Your task to perform on an android device: Go to notification settings Image 0: 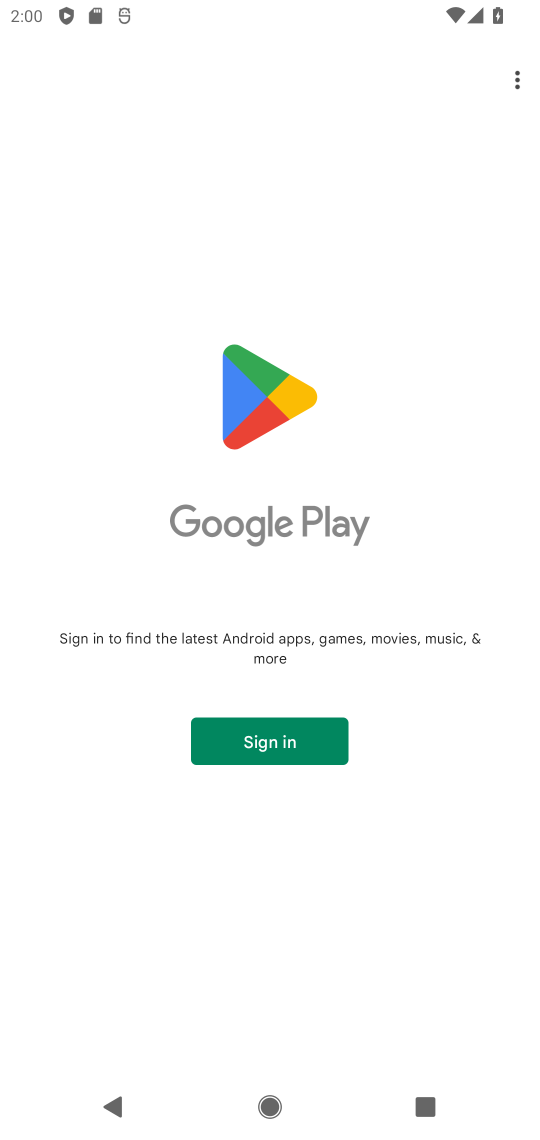
Step 0: press home button
Your task to perform on an android device: Go to notification settings Image 1: 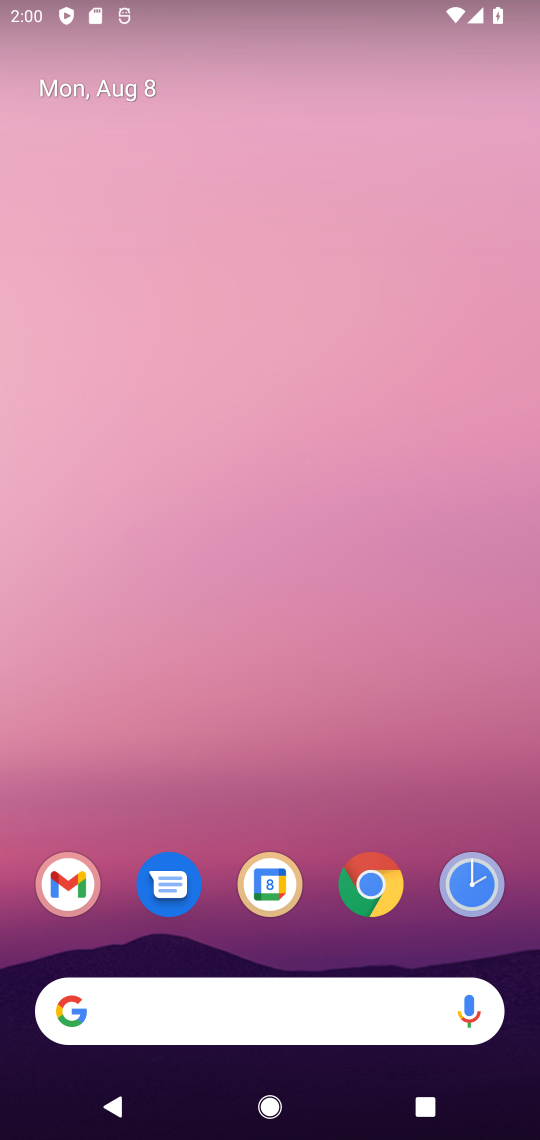
Step 1: drag from (272, 789) to (269, 226)
Your task to perform on an android device: Go to notification settings Image 2: 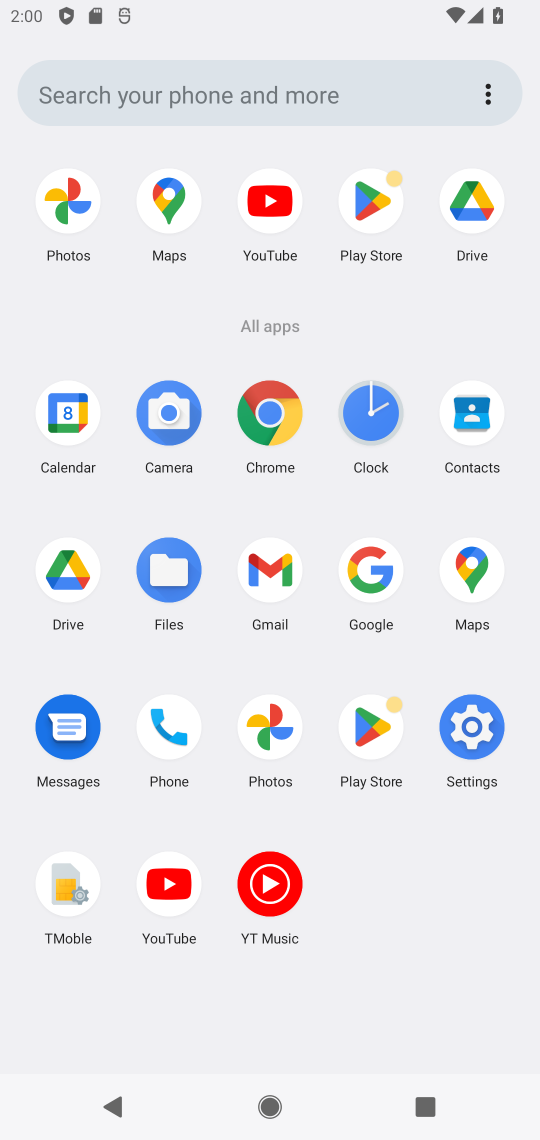
Step 2: click (474, 729)
Your task to perform on an android device: Go to notification settings Image 3: 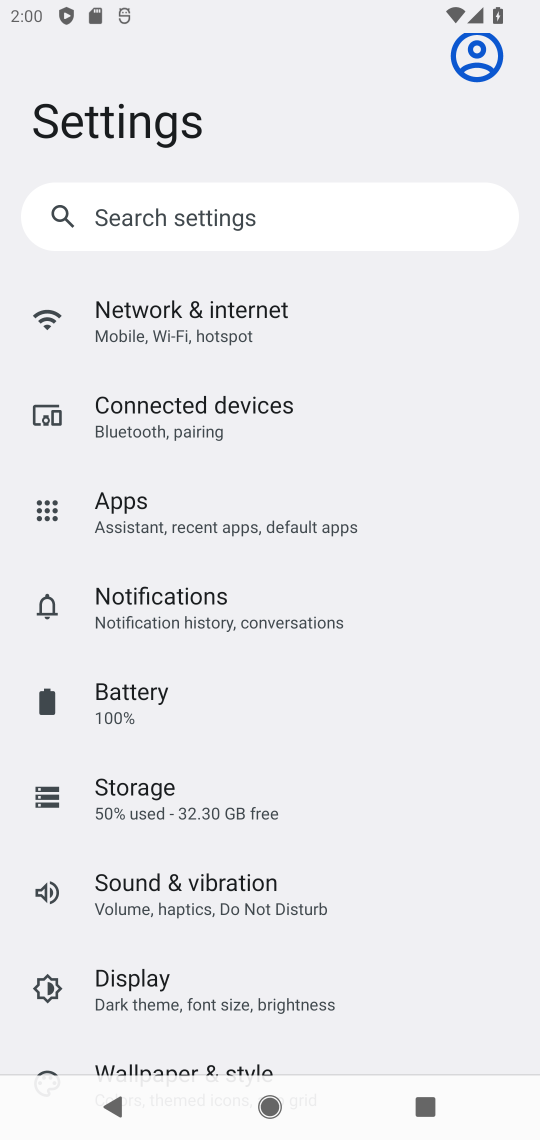
Step 3: click (162, 590)
Your task to perform on an android device: Go to notification settings Image 4: 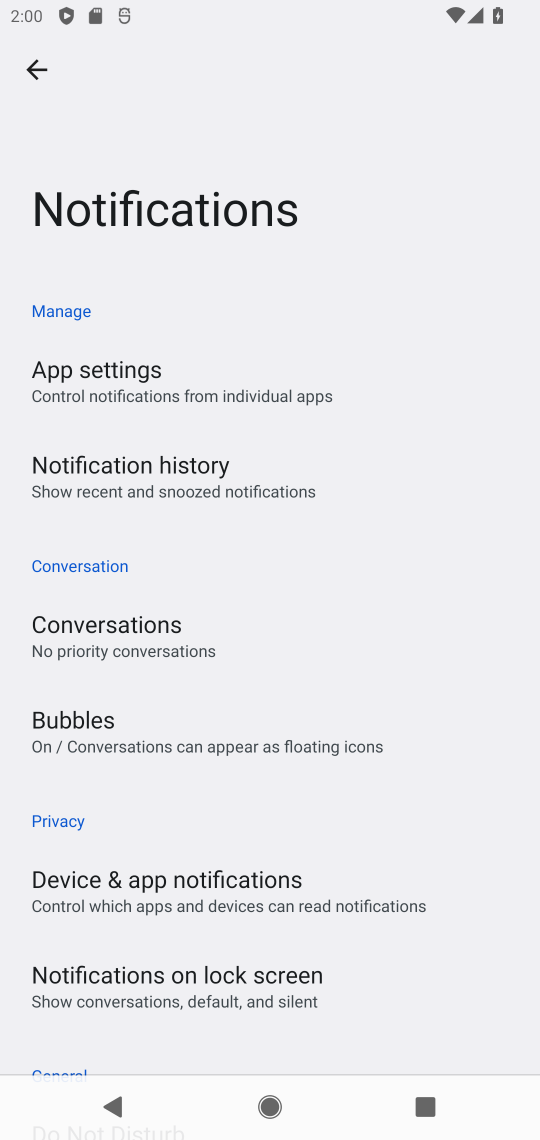
Step 4: task complete